Your task to perform on an android device: delete a single message in the gmail app Image 0: 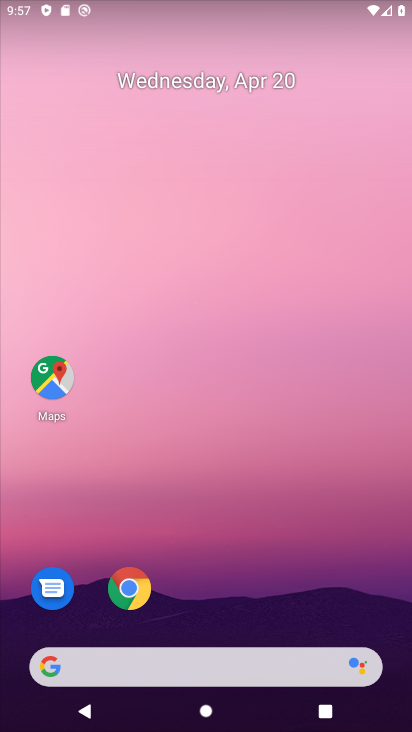
Step 0: drag from (150, 715) to (221, 324)
Your task to perform on an android device: delete a single message in the gmail app Image 1: 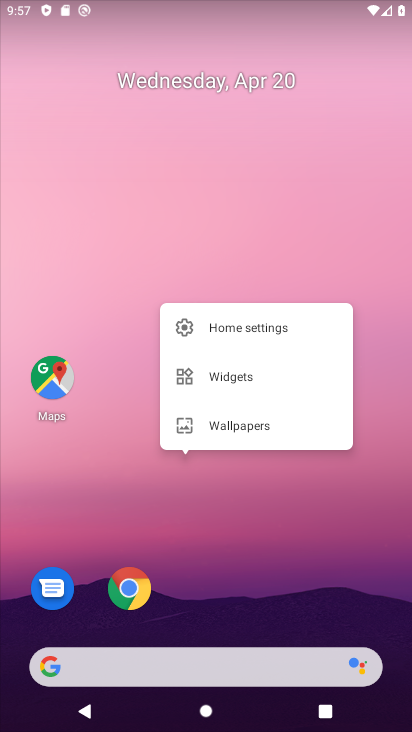
Step 1: drag from (212, 677) to (179, 75)
Your task to perform on an android device: delete a single message in the gmail app Image 2: 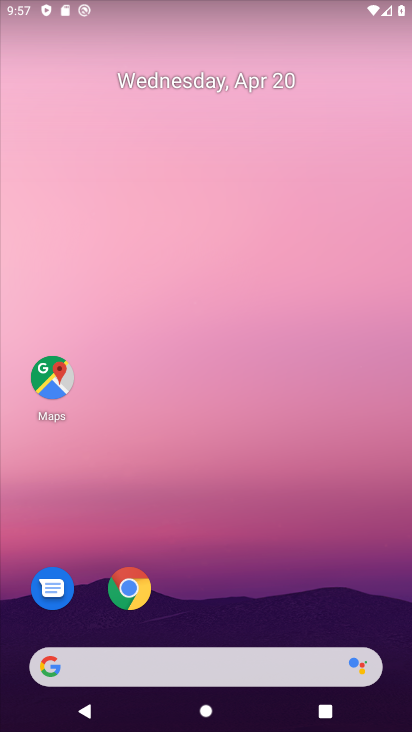
Step 2: drag from (211, 677) to (276, 229)
Your task to perform on an android device: delete a single message in the gmail app Image 3: 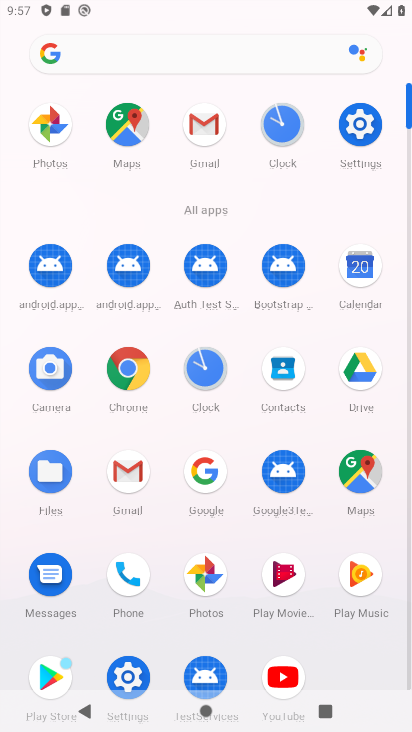
Step 3: click (206, 136)
Your task to perform on an android device: delete a single message in the gmail app Image 4: 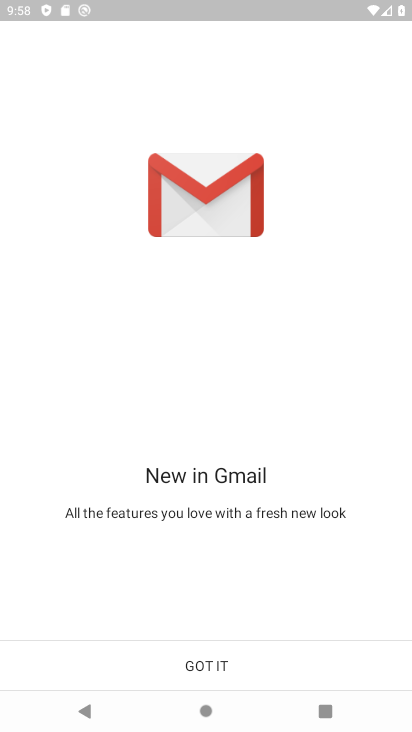
Step 4: click (209, 668)
Your task to perform on an android device: delete a single message in the gmail app Image 5: 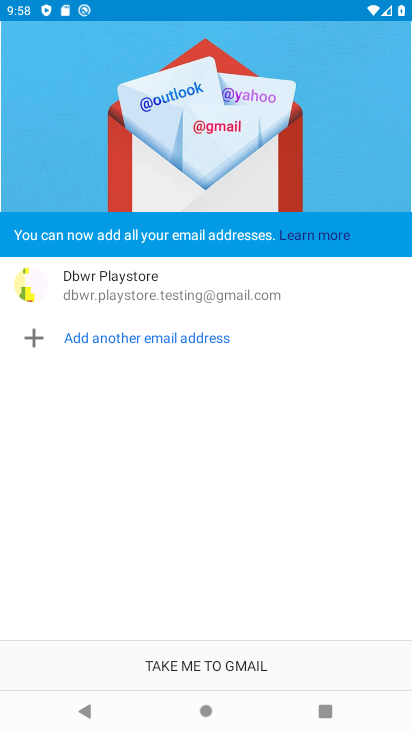
Step 5: click (213, 666)
Your task to perform on an android device: delete a single message in the gmail app Image 6: 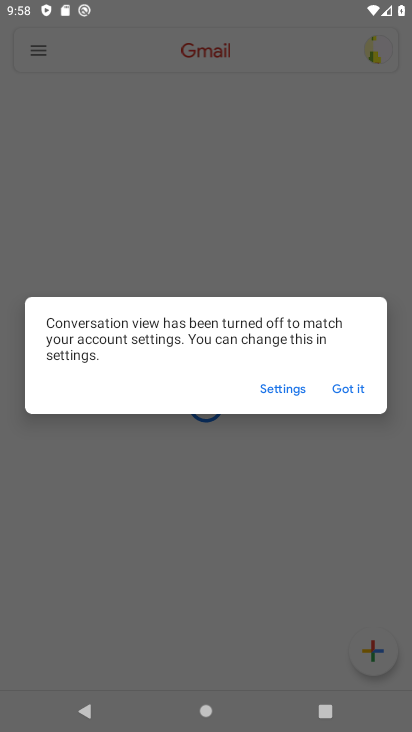
Step 6: click (343, 393)
Your task to perform on an android device: delete a single message in the gmail app Image 7: 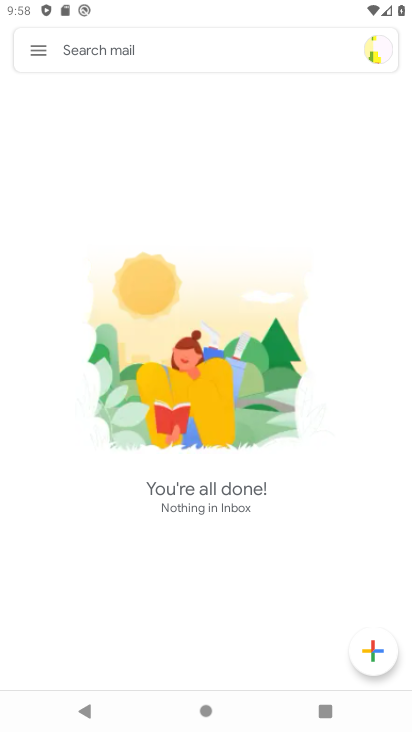
Step 7: click (36, 53)
Your task to perform on an android device: delete a single message in the gmail app Image 8: 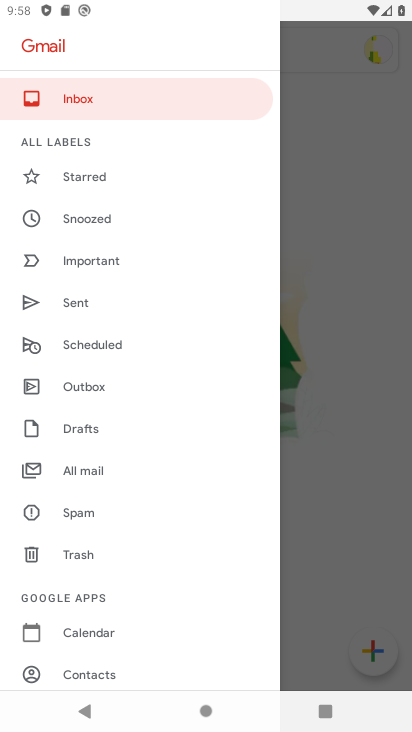
Step 8: click (107, 103)
Your task to perform on an android device: delete a single message in the gmail app Image 9: 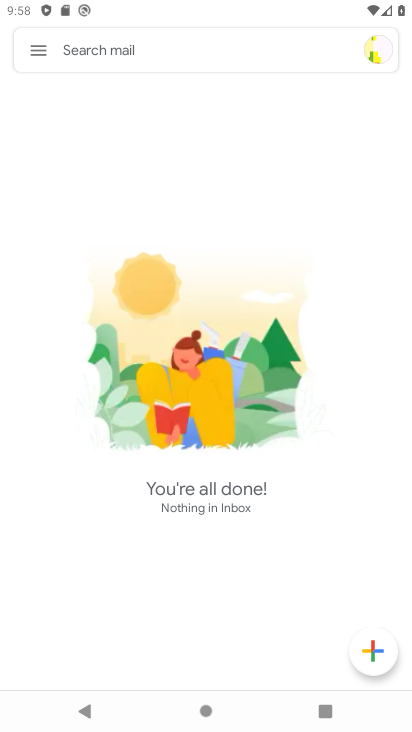
Step 9: task complete